Your task to perform on an android device: find photos in the google photos app Image 0: 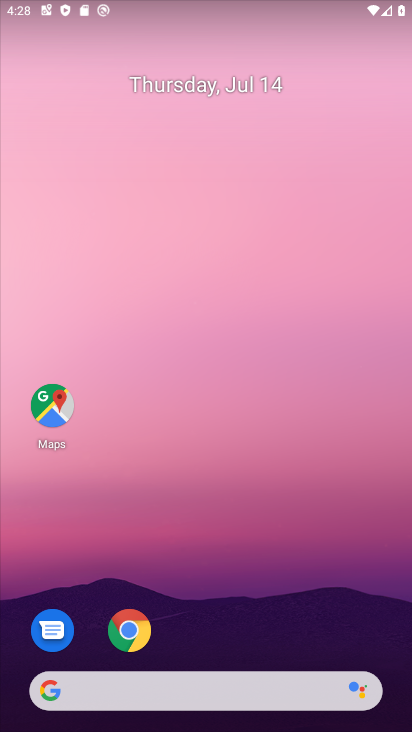
Step 0: drag from (295, 689) to (410, 45)
Your task to perform on an android device: find photos in the google photos app Image 1: 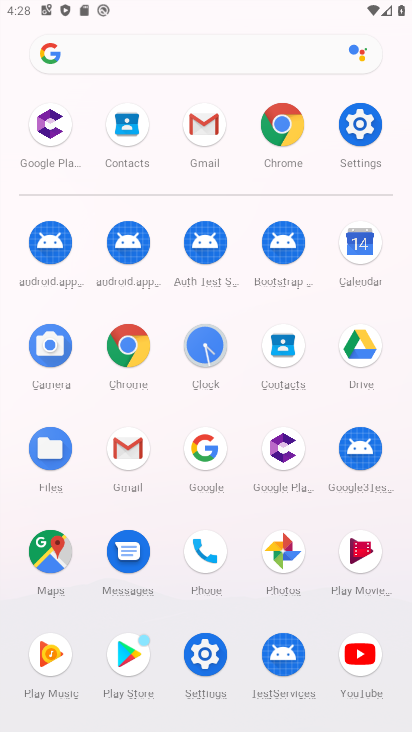
Step 1: click (277, 546)
Your task to perform on an android device: find photos in the google photos app Image 2: 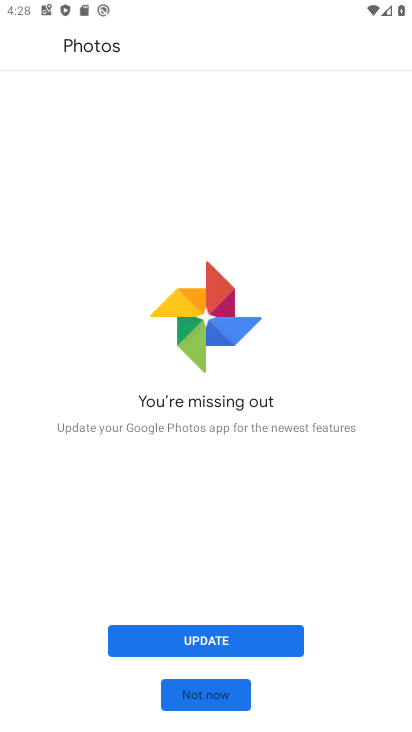
Step 2: click (272, 642)
Your task to perform on an android device: find photos in the google photos app Image 3: 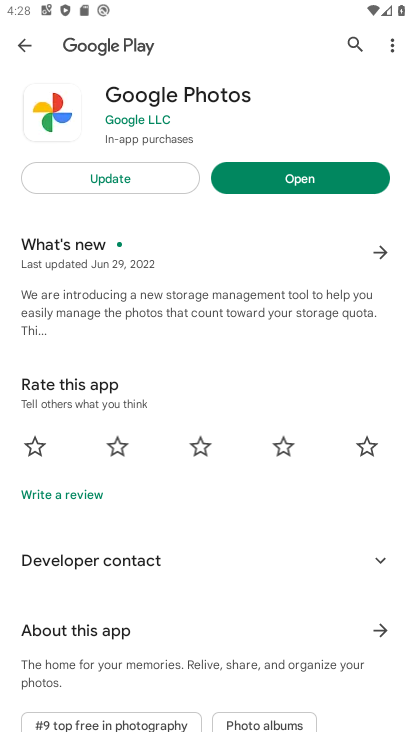
Step 3: click (100, 181)
Your task to perform on an android device: find photos in the google photos app Image 4: 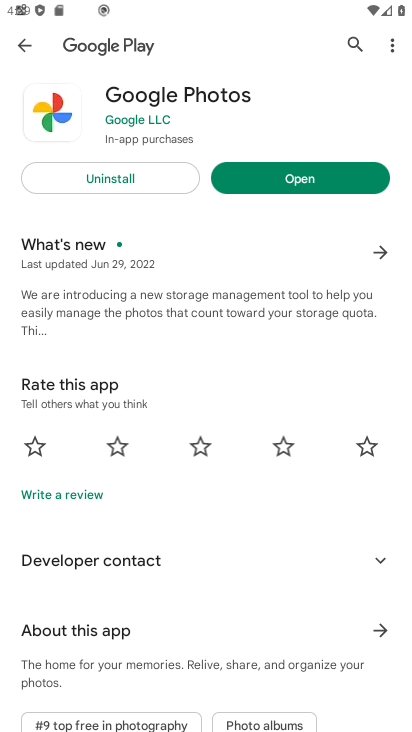
Step 4: click (313, 173)
Your task to perform on an android device: find photos in the google photos app Image 5: 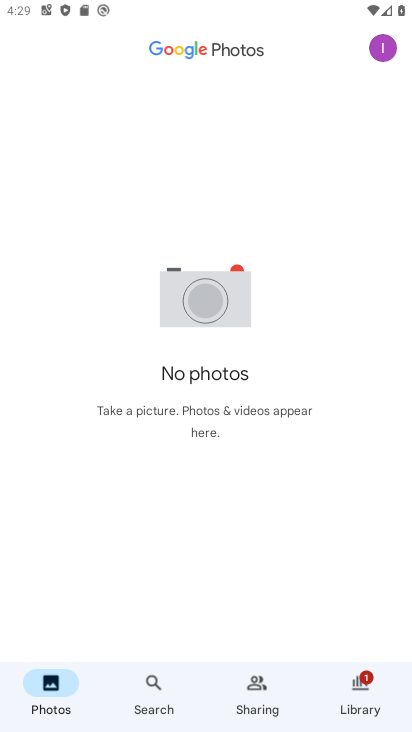
Step 5: task complete